Your task to perform on an android device: Add dell xps to the cart on ebay, then select checkout. Image 0: 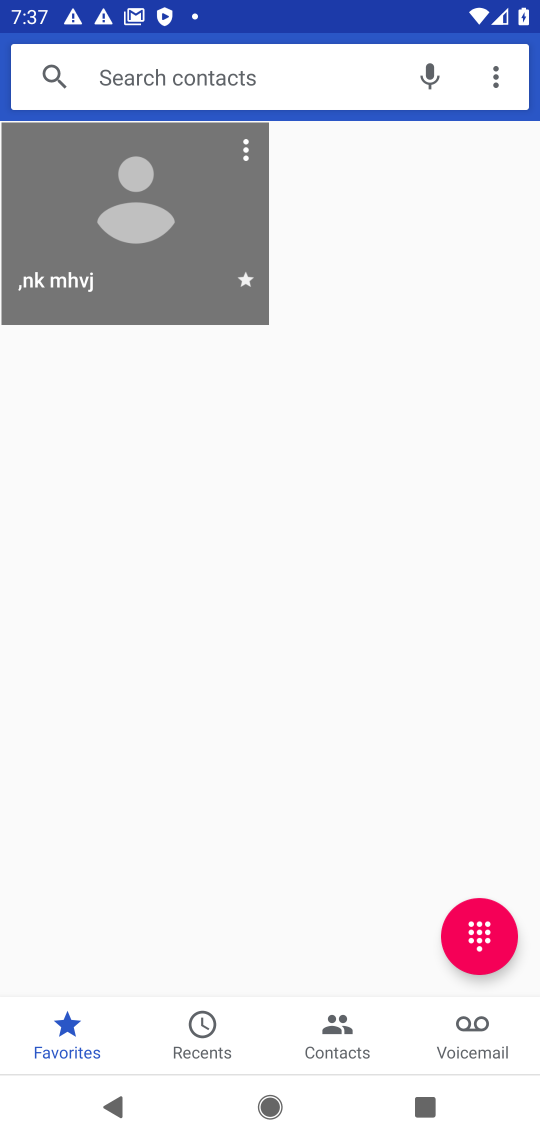
Step 0: press home button
Your task to perform on an android device: Add dell xps to the cart on ebay, then select checkout. Image 1: 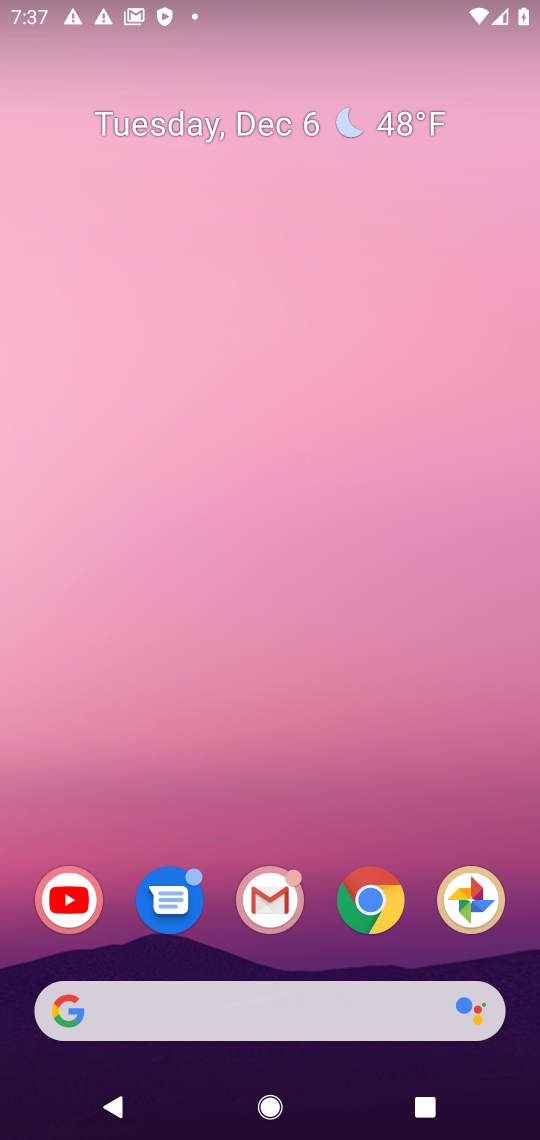
Step 1: drag from (217, 1028) to (299, 426)
Your task to perform on an android device: Add dell xps to the cart on ebay, then select checkout. Image 2: 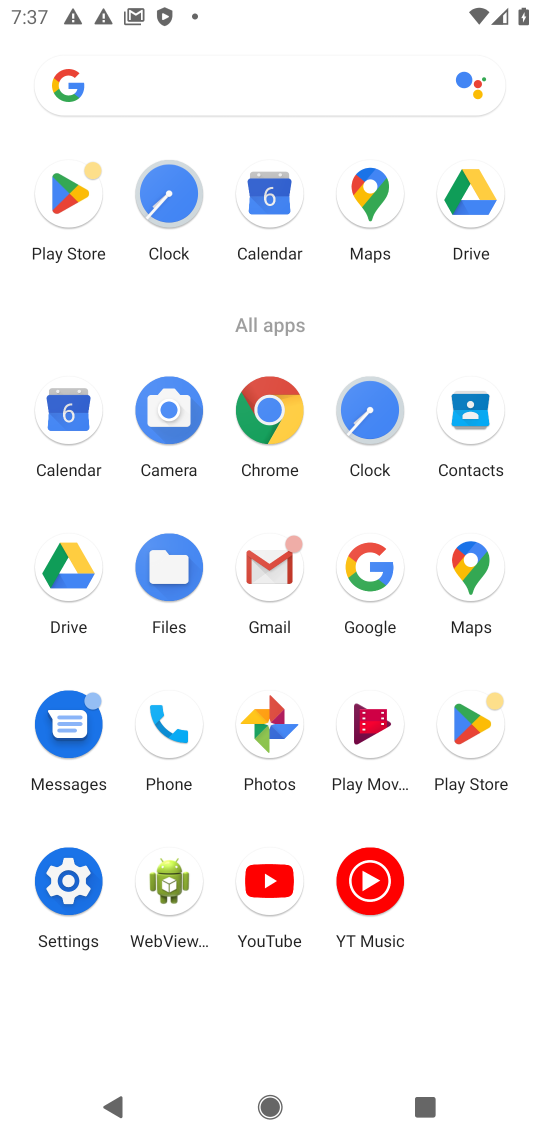
Step 2: click (384, 565)
Your task to perform on an android device: Add dell xps to the cart on ebay, then select checkout. Image 3: 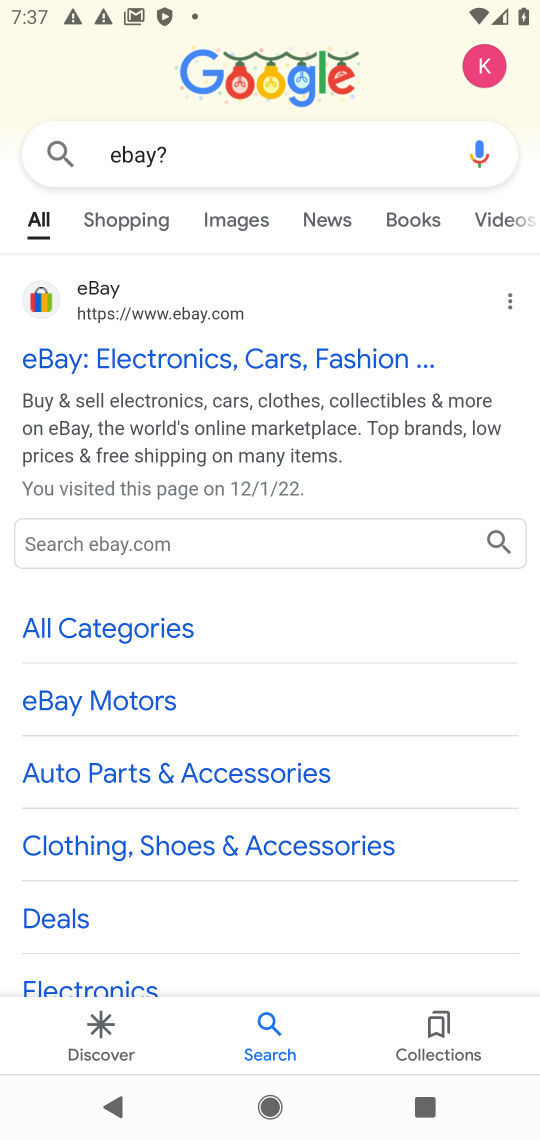
Step 3: click (134, 366)
Your task to perform on an android device: Add dell xps to the cart on ebay, then select checkout. Image 4: 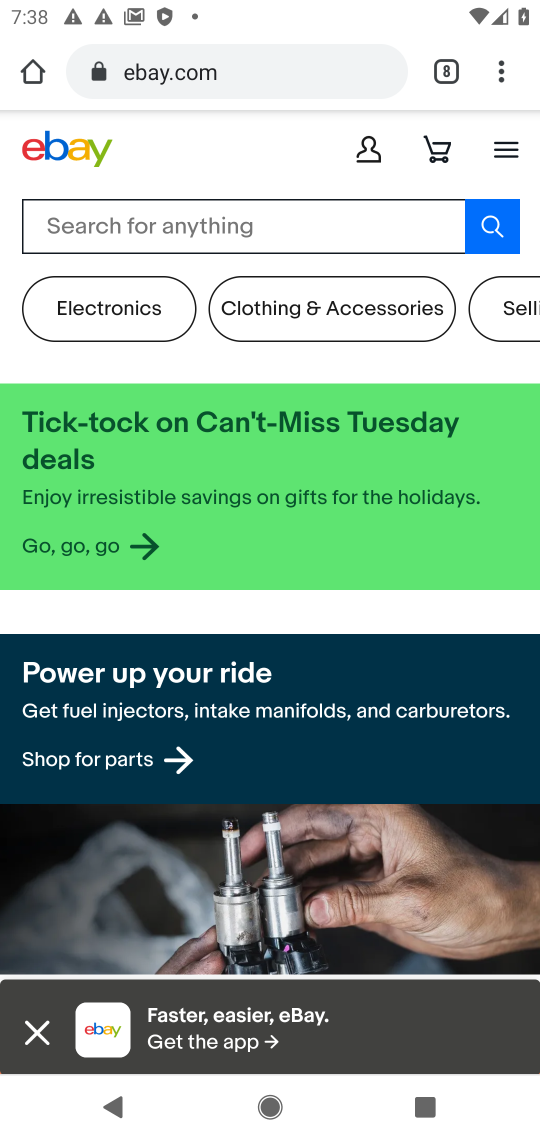
Step 4: click (321, 244)
Your task to perform on an android device: Add dell xps to the cart on ebay, then select checkout. Image 5: 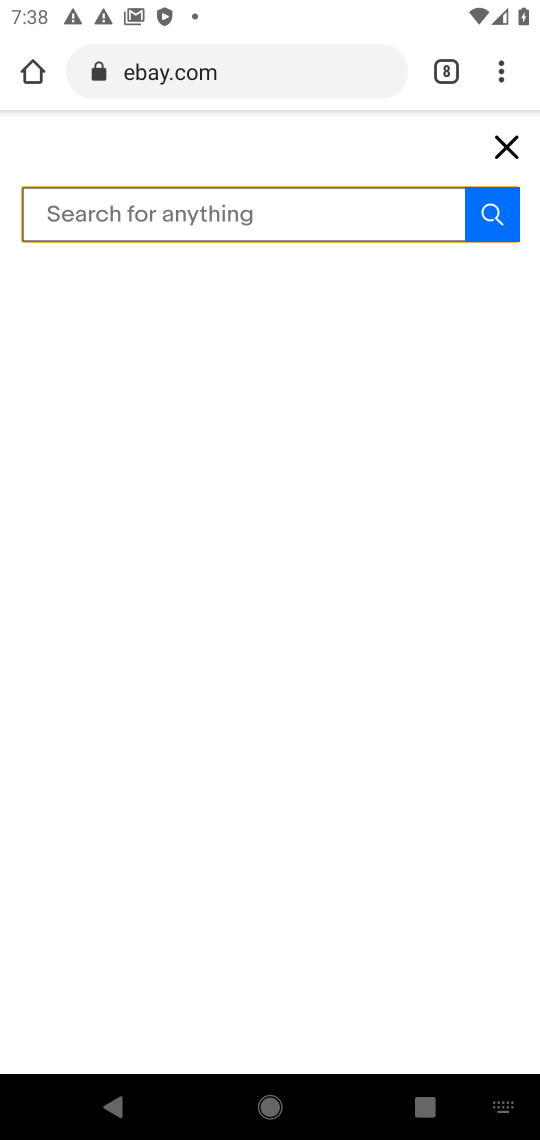
Step 5: type "dell xps"
Your task to perform on an android device: Add dell xps to the cart on ebay, then select checkout. Image 6: 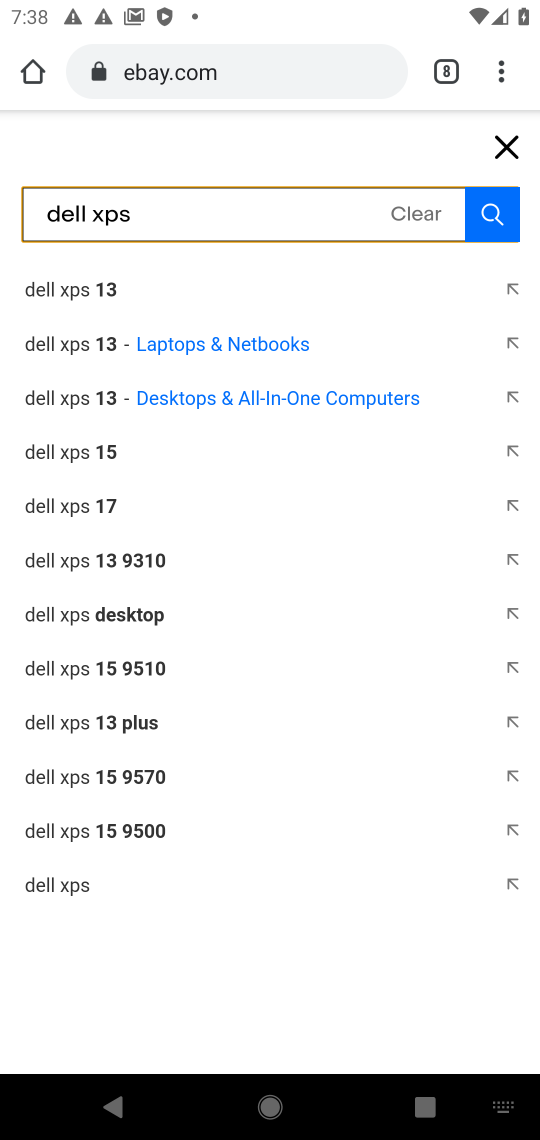
Step 6: click (46, 283)
Your task to perform on an android device: Add dell xps to the cart on ebay, then select checkout. Image 7: 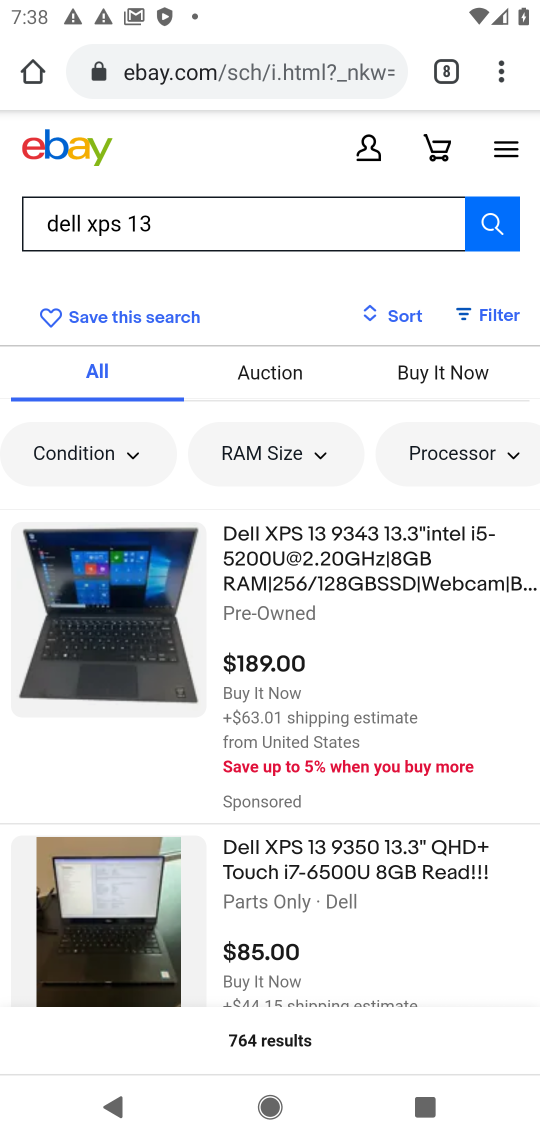
Step 7: click (316, 588)
Your task to perform on an android device: Add dell xps to the cart on ebay, then select checkout. Image 8: 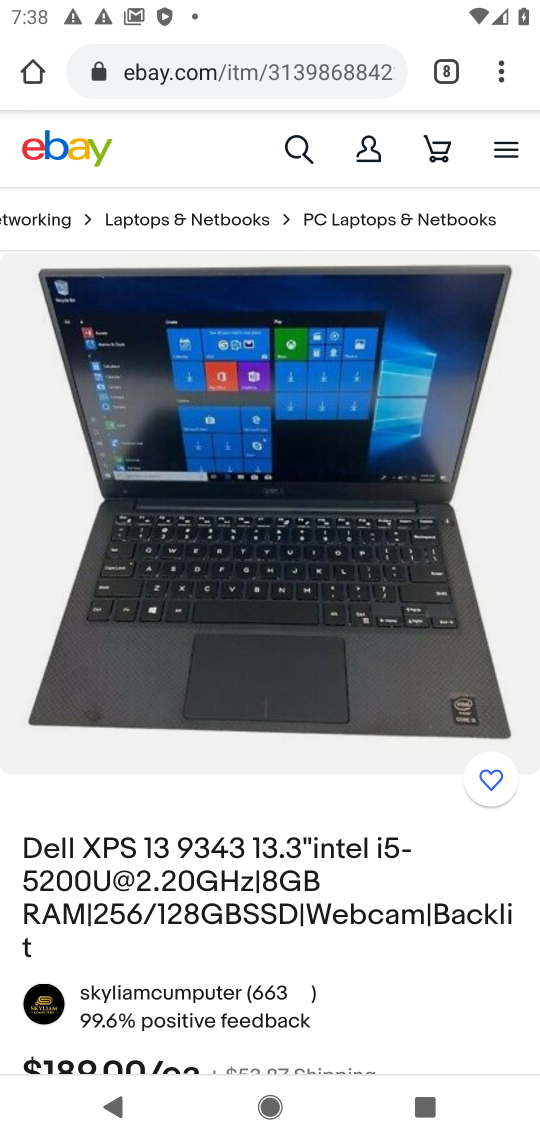
Step 8: drag from (303, 987) to (301, 345)
Your task to perform on an android device: Add dell xps to the cart on ebay, then select checkout. Image 9: 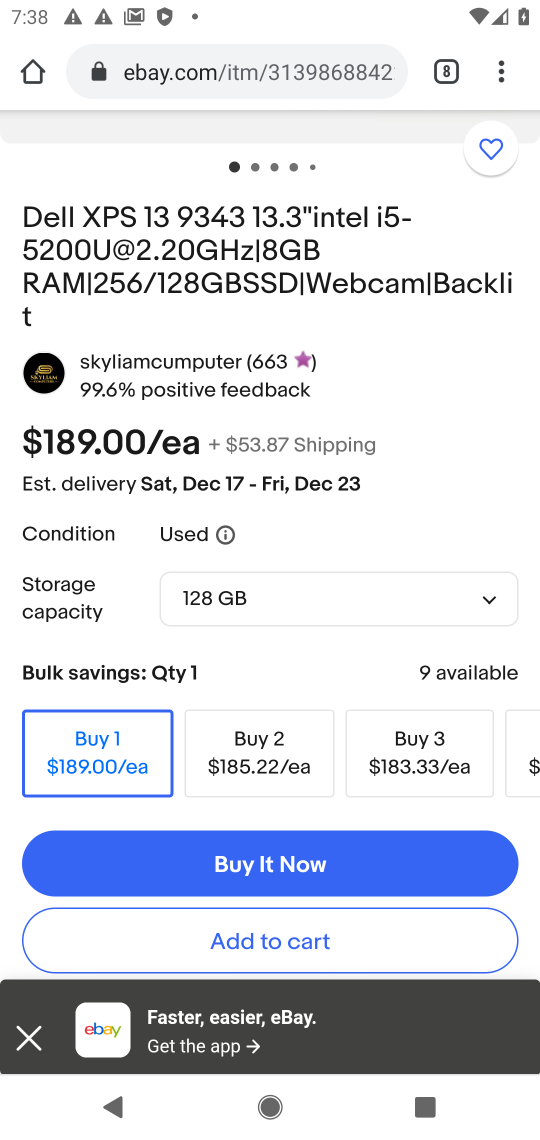
Step 9: click (236, 948)
Your task to perform on an android device: Add dell xps to the cart on ebay, then select checkout. Image 10: 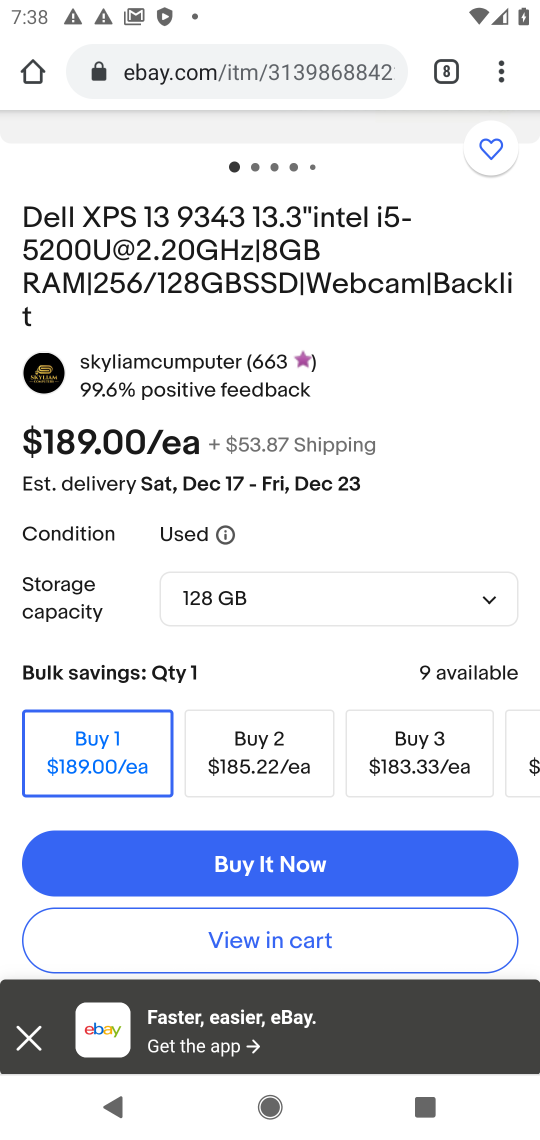
Step 10: click (268, 948)
Your task to perform on an android device: Add dell xps to the cart on ebay, then select checkout. Image 11: 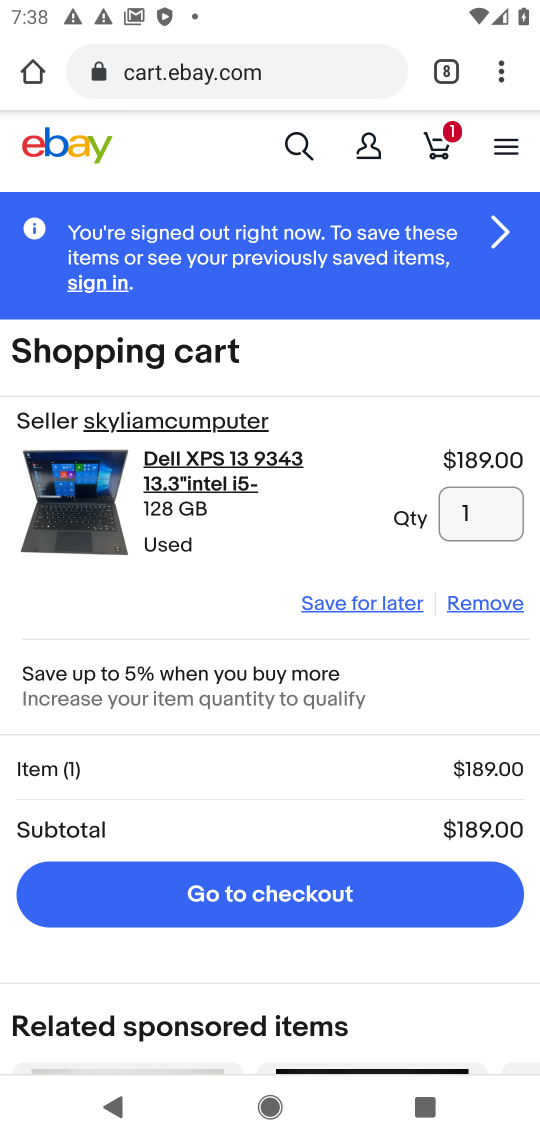
Step 11: click (277, 897)
Your task to perform on an android device: Add dell xps to the cart on ebay, then select checkout. Image 12: 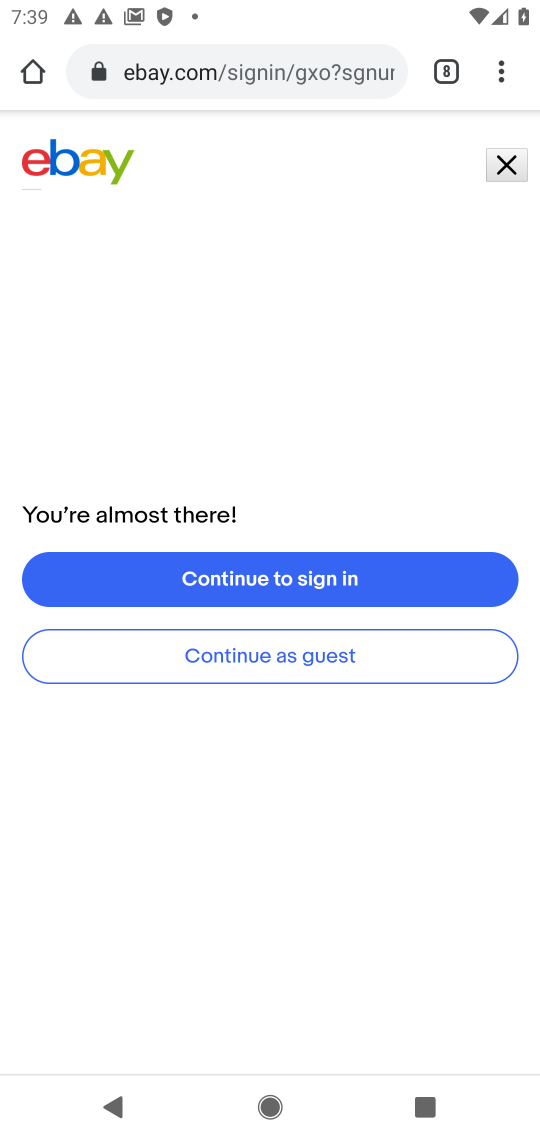
Step 12: task complete